Your task to perform on an android device: toggle airplane mode Image 0: 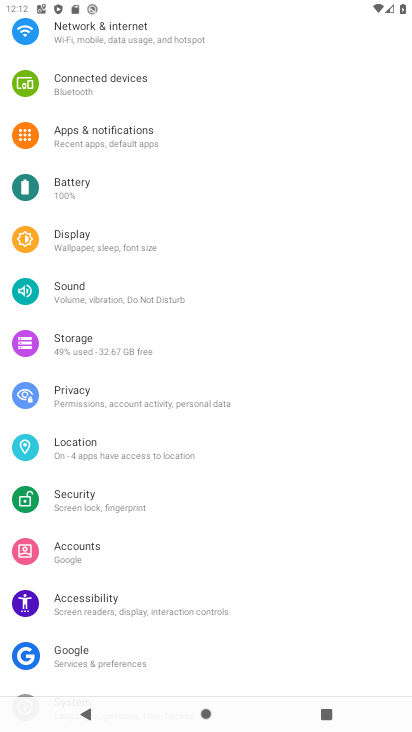
Step 0: press home button
Your task to perform on an android device: toggle airplane mode Image 1: 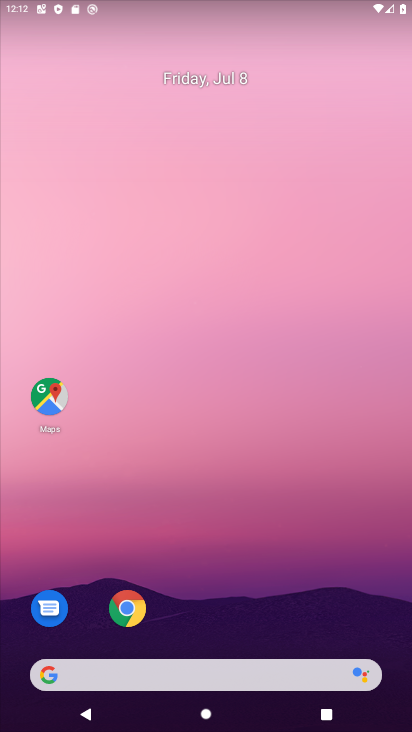
Step 1: drag from (357, 2) to (265, 425)
Your task to perform on an android device: toggle airplane mode Image 2: 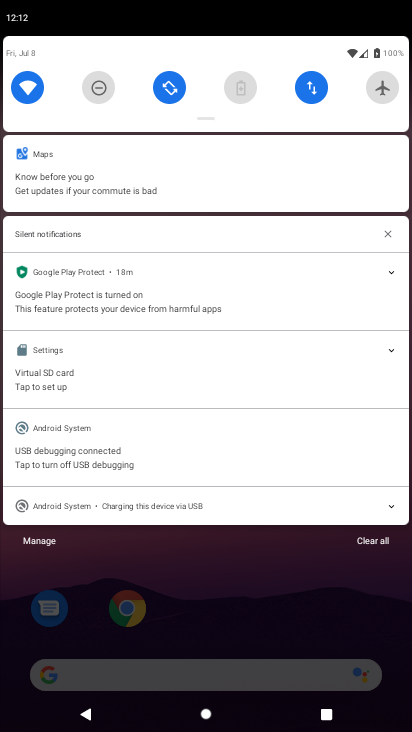
Step 2: click (386, 101)
Your task to perform on an android device: toggle airplane mode Image 3: 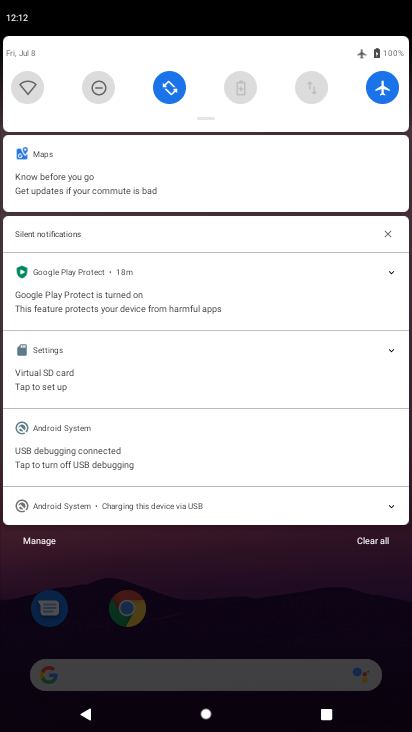
Step 3: task complete